Your task to perform on an android device: change the clock display to analog Image 0: 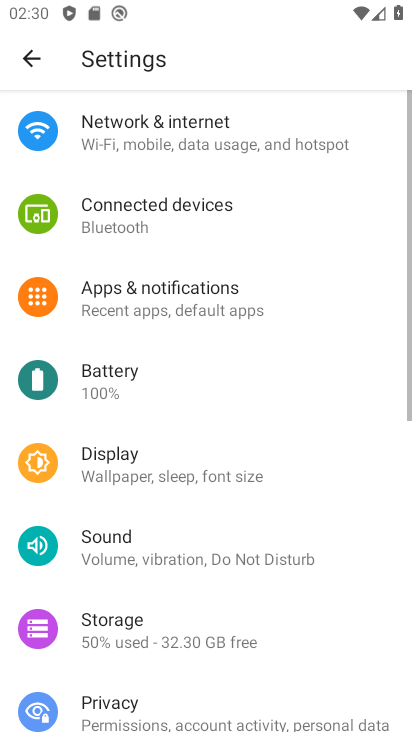
Step 0: press home button
Your task to perform on an android device: change the clock display to analog Image 1: 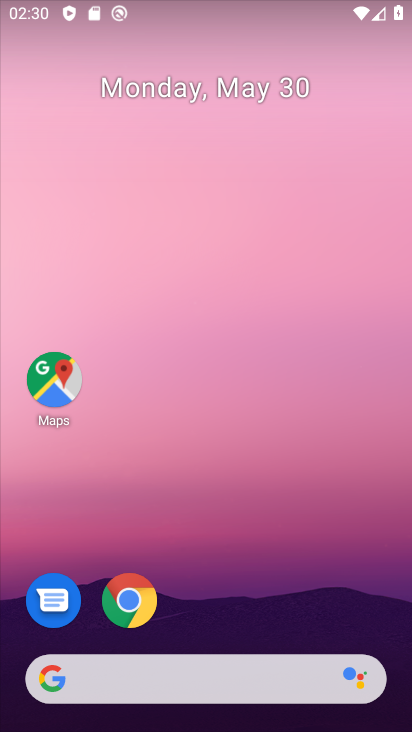
Step 1: drag from (297, 599) to (315, 176)
Your task to perform on an android device: change the clock display to analog Image 2: 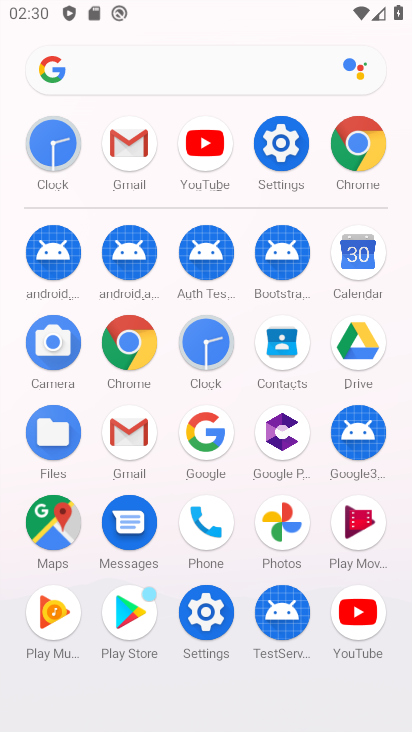
Step 2: click (212, 356)
Your task to perform on an android device: change the clock display to analog Image 3: 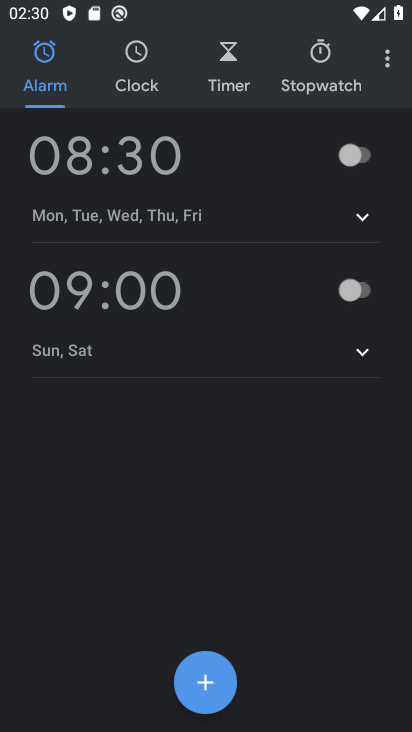
Step 3: click (392, 54)
Your task to perform on an android device: change the clock display to analog Image 4: 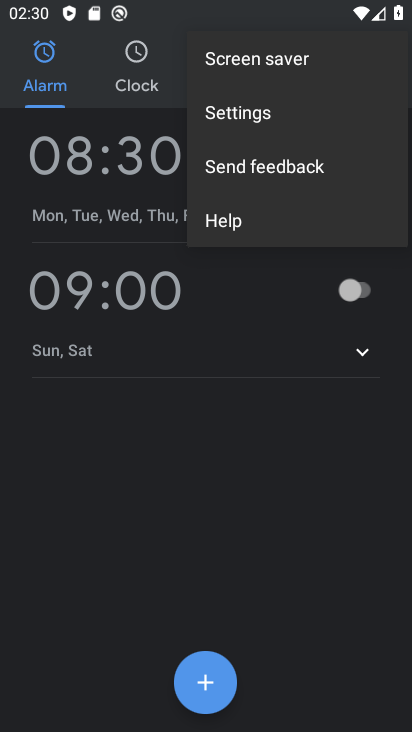
Step 4: click (254, 119)
Your task to perform on an android device: change the clock display to analog Image 5: 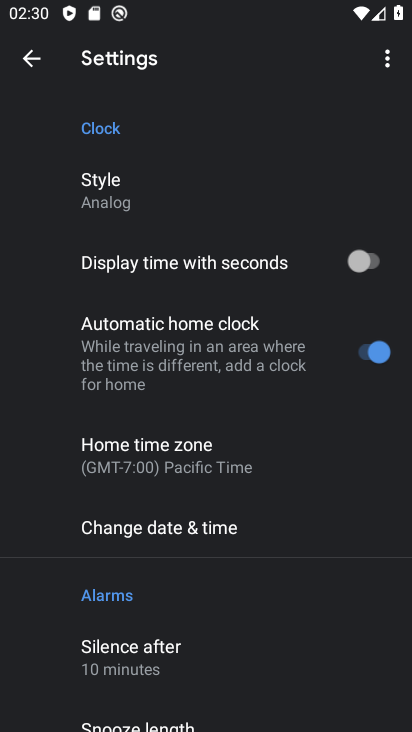
Step 5: click (110, 191)
Your task to perform on an android device: change the clock display to analog Image 6: 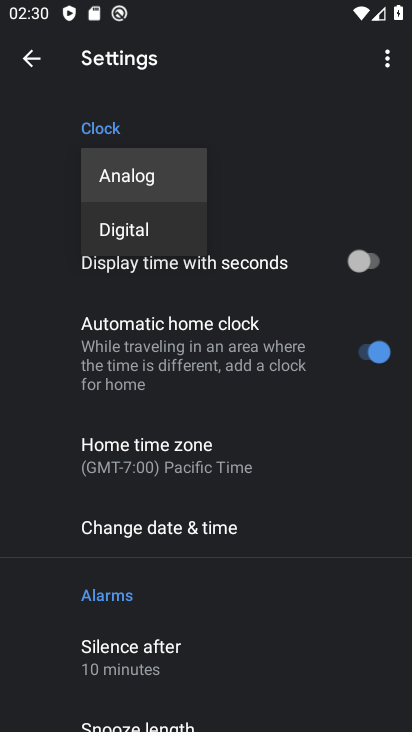
Step 6: click (133, 226)
Your task to perform on an android device: change the clock display to analog Image 7: 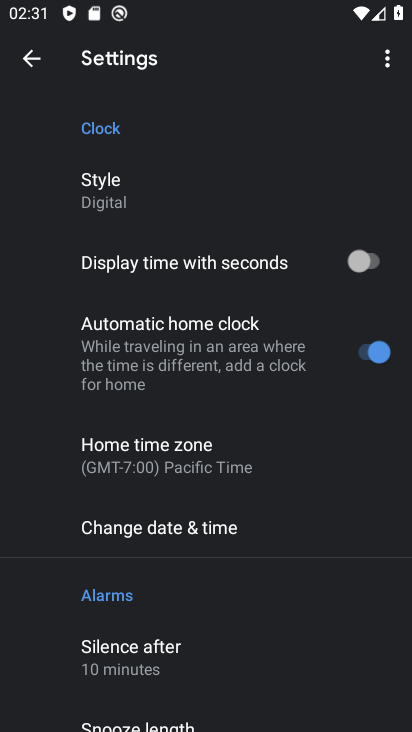
Step 7: task complete